Your task to perform on an android device: Search for the best books of all time on Goodreads Image 0: 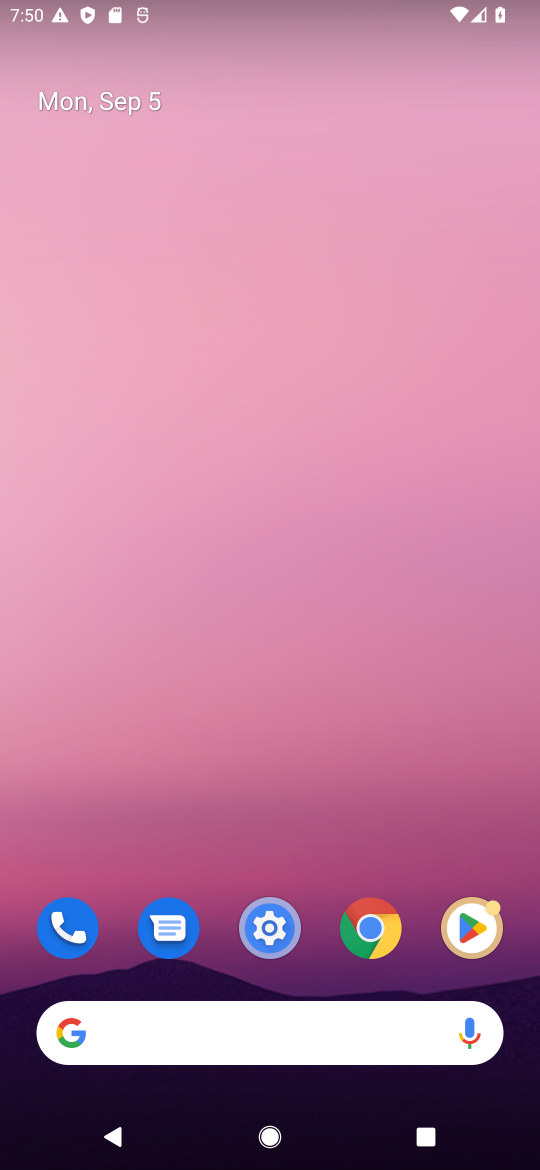
Step 0: click (376, 948)
Your task to perform on an android device: Search for the best books of all time on Goodreads Image 1: 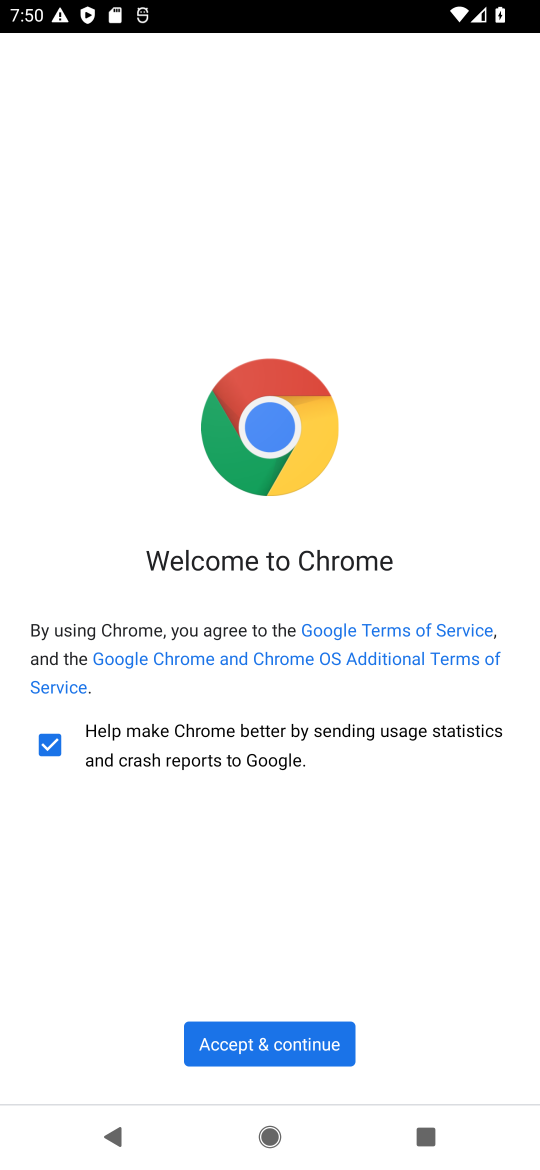
Step 1: click (258, 1050)
Your task to perform on an android device: Search for the best books of all time on Goodreads Image 2: 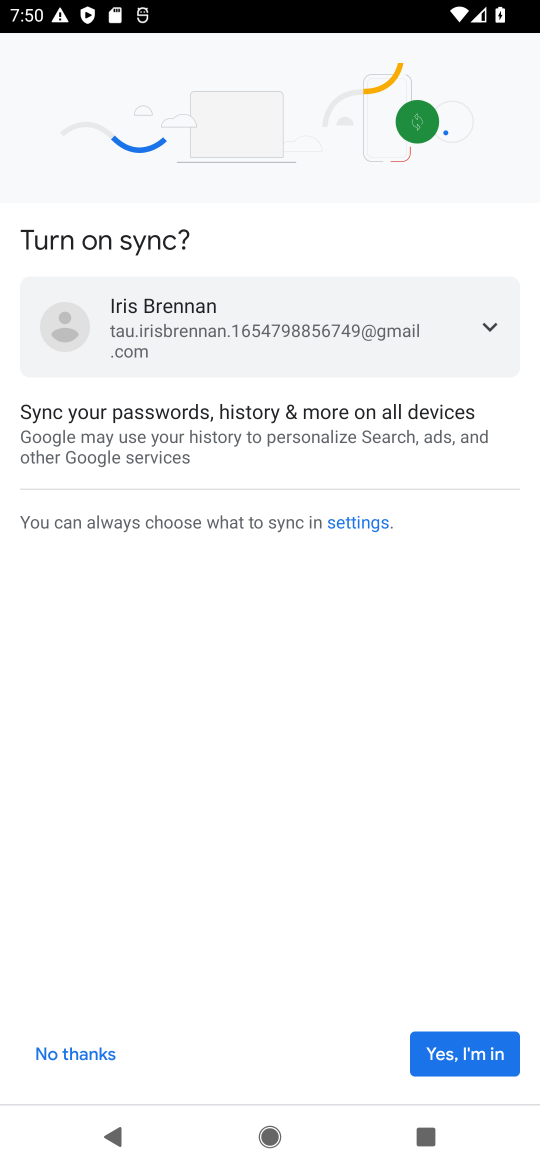
Step 2: click (453, 1072)
Your task to perform on an android device: Search for the best books of all time on Goodreads Image 3: 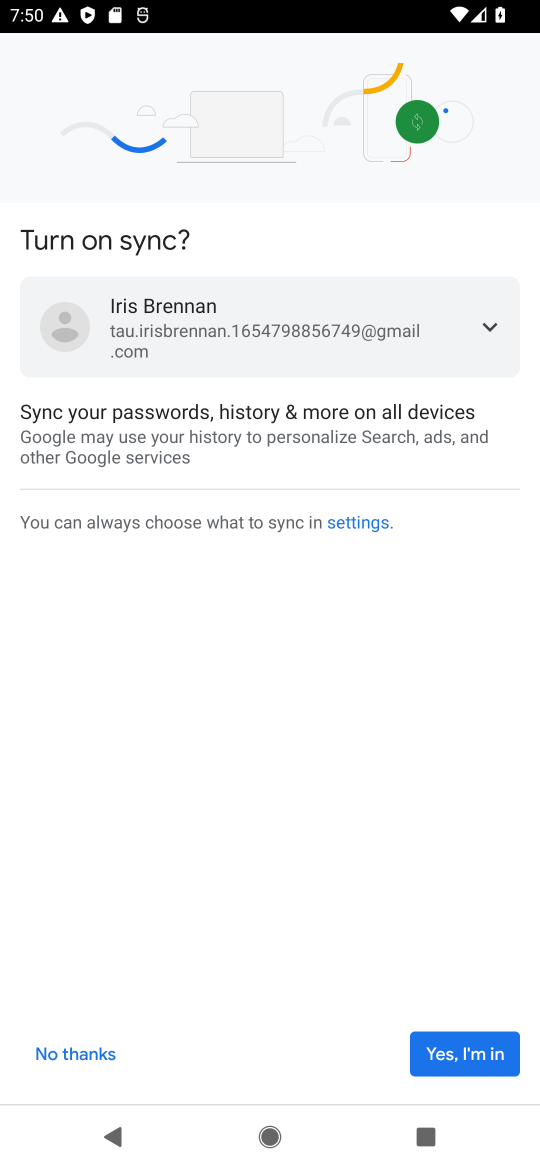
Step 3: click (459, 1056)
Your task to perform on an android device: Search for the best books of all time on Goodreads Image 4: 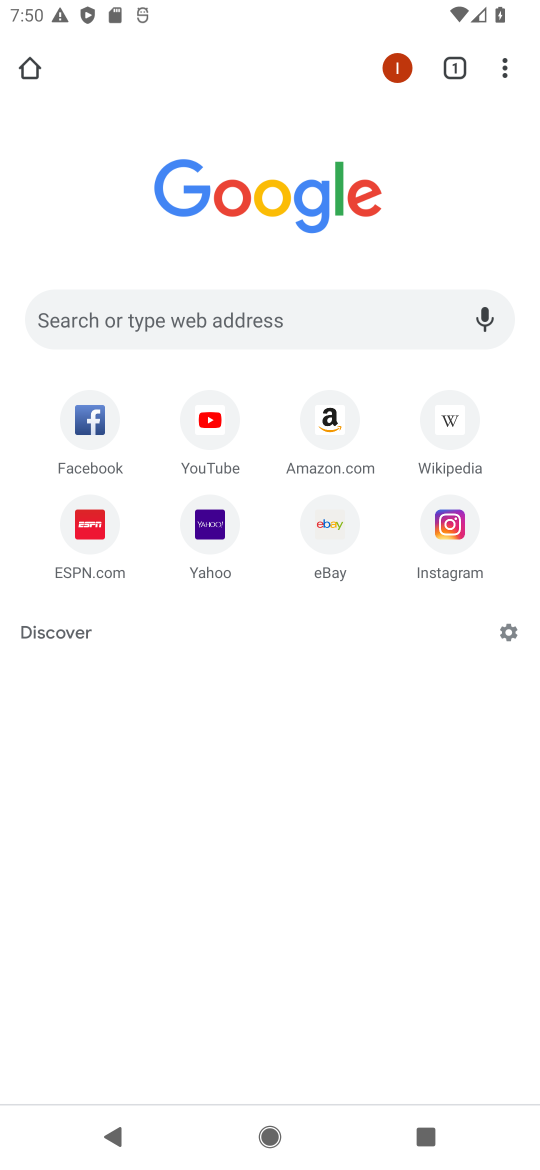
Step 4: click (277, 334)
Your task to perform on an android device: Search for the best books of all time on Goodreads Image 5: 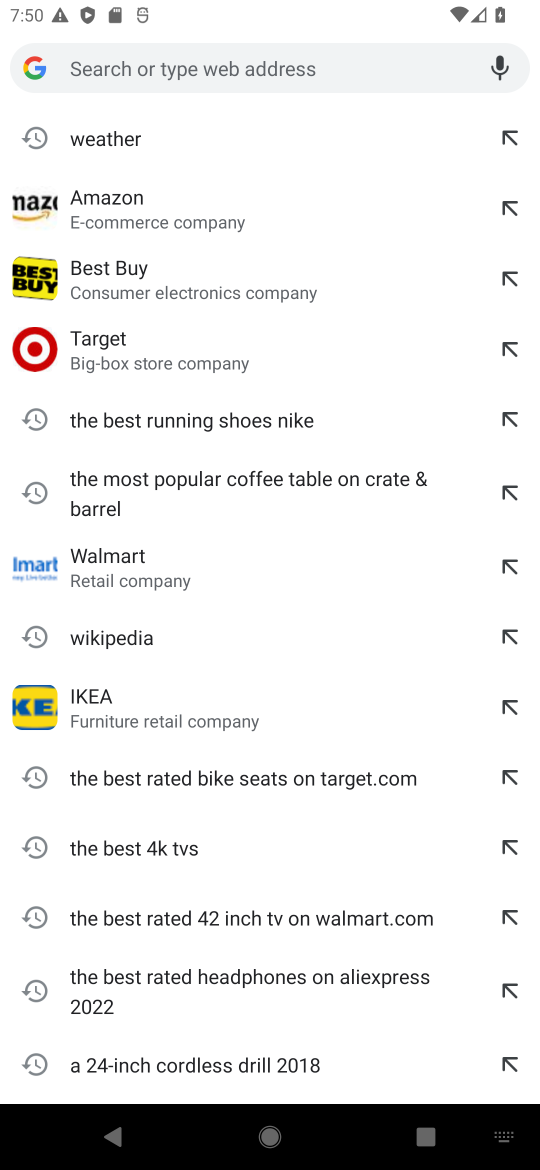
Step 5: type "goodreads"
Your task to perform on an android device: Search for the best books of all time on Goodreads Image 6: 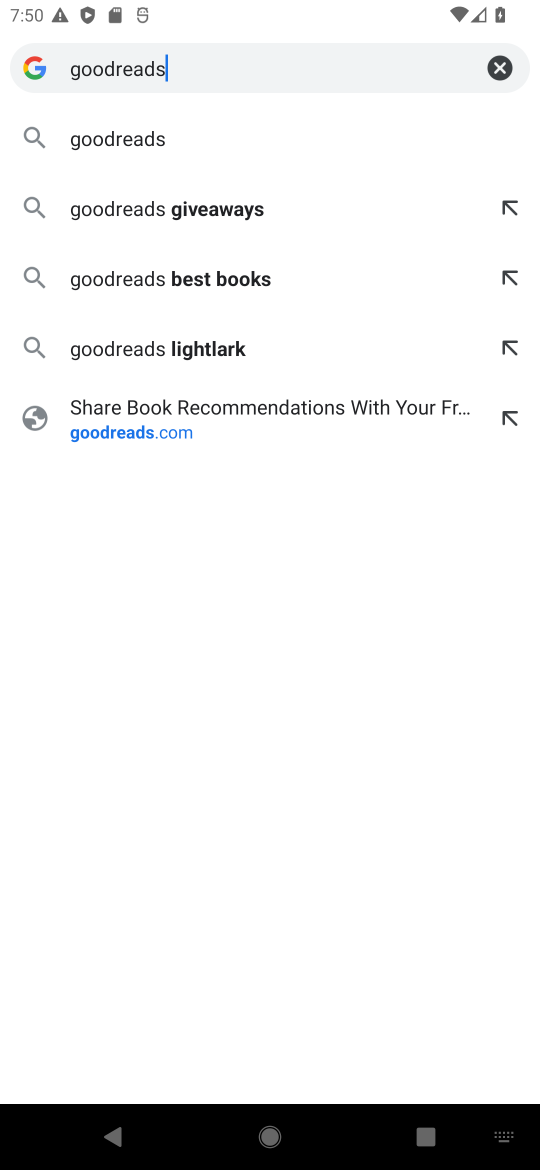
Step 6: click (115, 138)
Your task to perform on an android device: Search for the best books of all time on Goodreads Image 7: 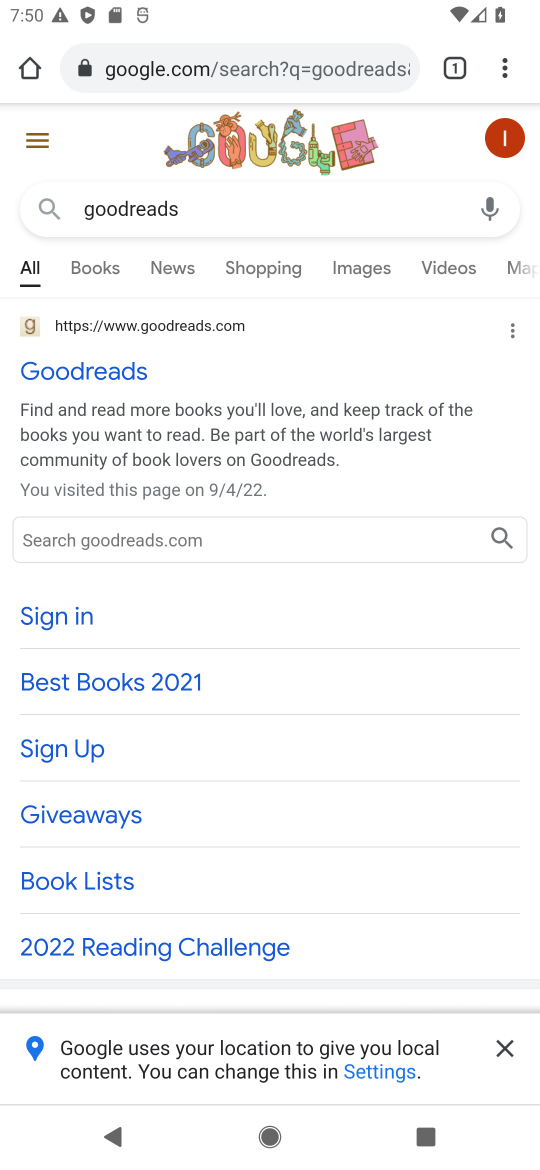
Step 7: click (85, 378)
Your task to perform on an android device: Search for the best books of all time on Goodreads Image 8: 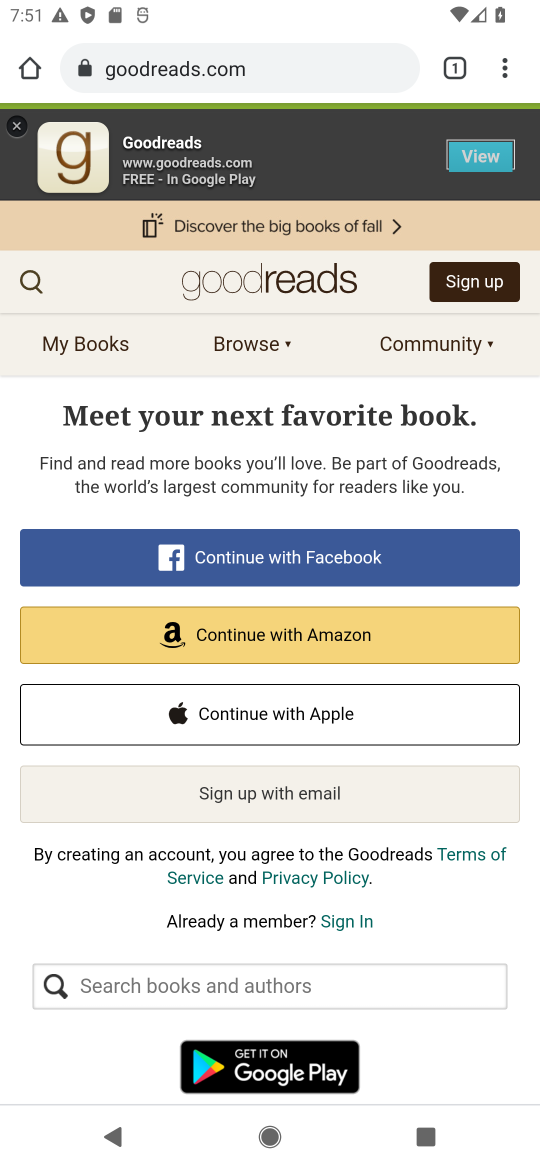
Step 8: task complete